Your task to perform on an android device: Open Chrome and go to settings Image 0: 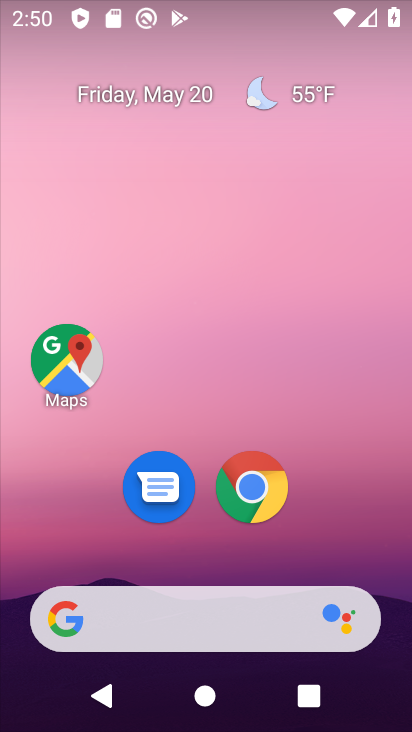
Step 0: drag from (316, 695) to (141, 5)
Your task to perform on an android device: Open Chrome and go to settings Image 1: 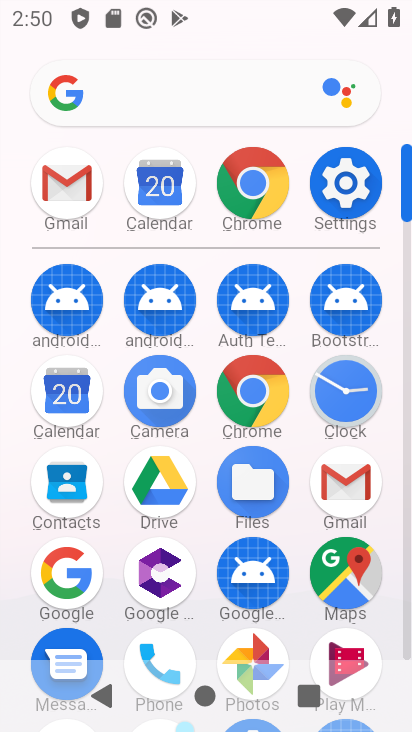
Step 1: click (343, 186)
Your task to perform on an android device: Open Chrome and go to settings Image 2: 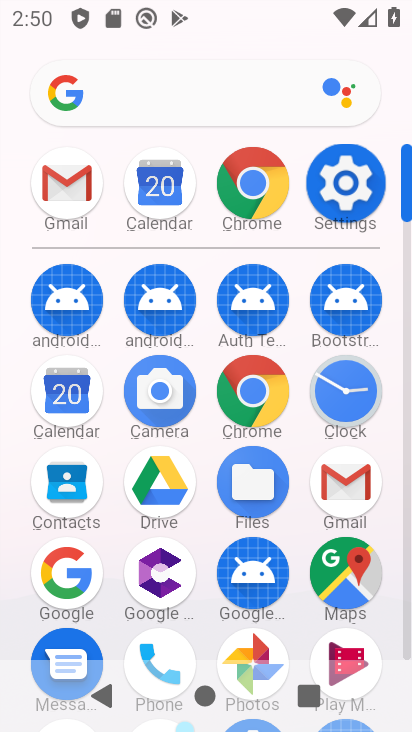
Step 2: click (373, 170)
Your task to perform on an android device: Open Chrome and go to settings Image 3: 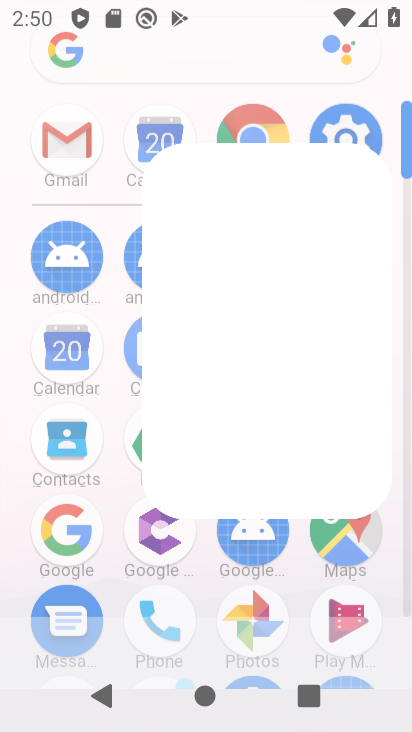
Step 3: click (373, 170)
Your task to perform on an android device: Open Chrome and go to settings Image 4: 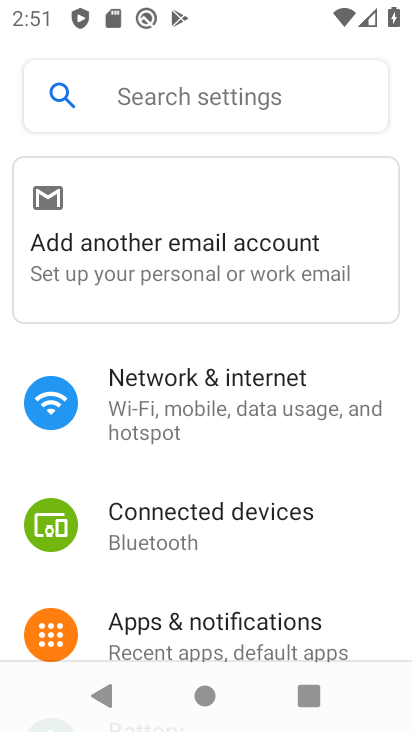
Step 4: drag from (242, 552) to (208, 167)
Your task to perform on an android device: Open Chrome and go to settings Image 5: 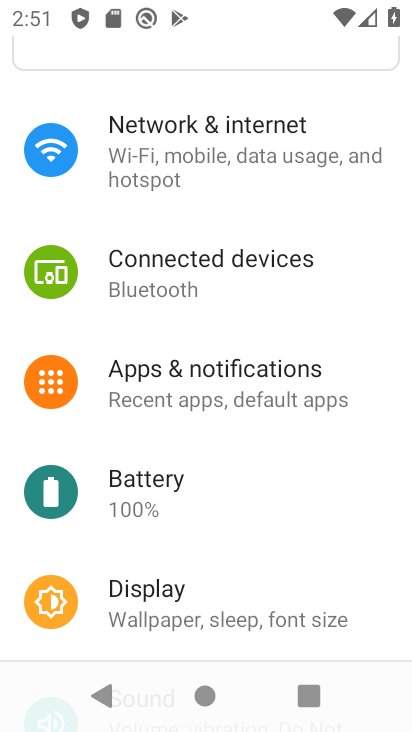
Step 5: drag from (207, 496) to (194, 57)
Your task to perform on an android device: Open Chrome and go to settings Image 6: 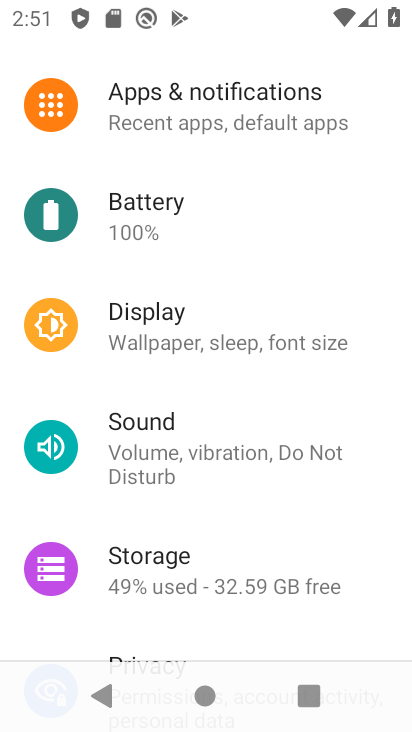
Step 6: drag from (230, 389) to (205, 81)
Your task to perform on an android device: Open Chrome and go to settings Image 7: 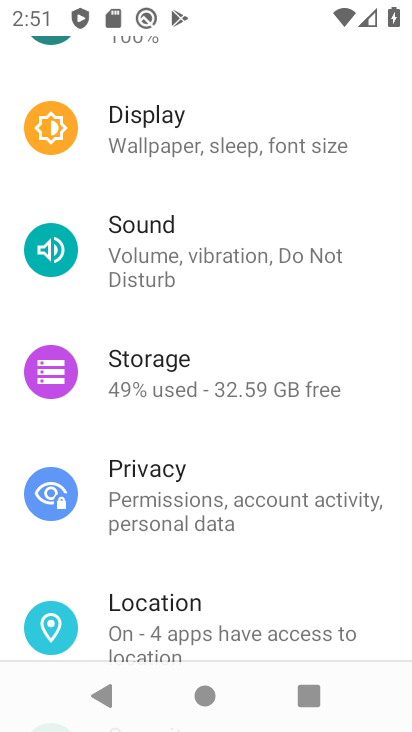
Step 7: drag from (295, 593) to (251, 89)
Your task to perform on an android device: Open Chrome and go to settings Image 8: 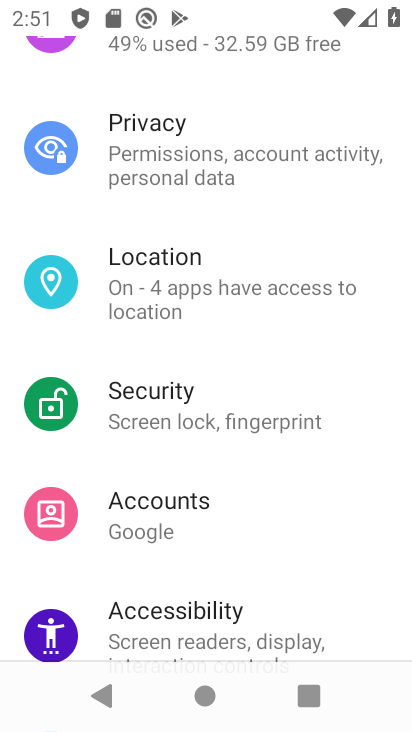
Step 8: drag from (293, 445) to (257, 44)
Your task to perform on an android device: Open Chrome and go to settings Image 9: 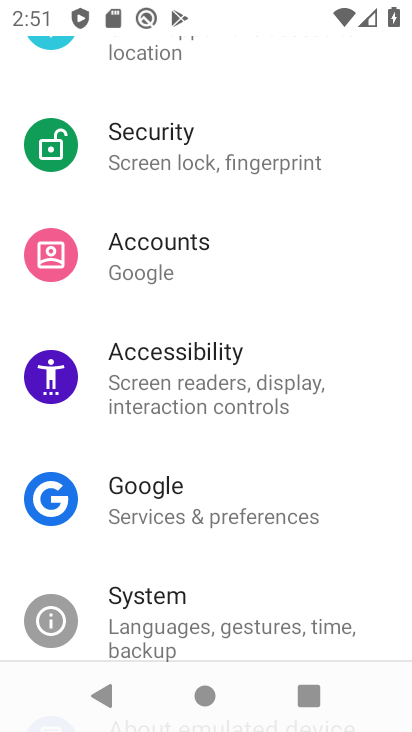
Step 9: drag from (240, 373) to (231, 202)
Your task to perform on an android device: Open Chrome and go to settings Image 10: 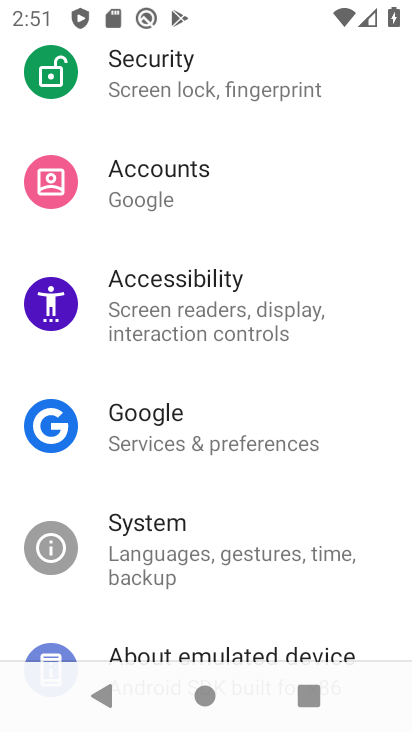
Step 10: drag from (221, 473) to (194, 72)
Your task to perform on an android device: Open Chrome and go to settings Image 11: 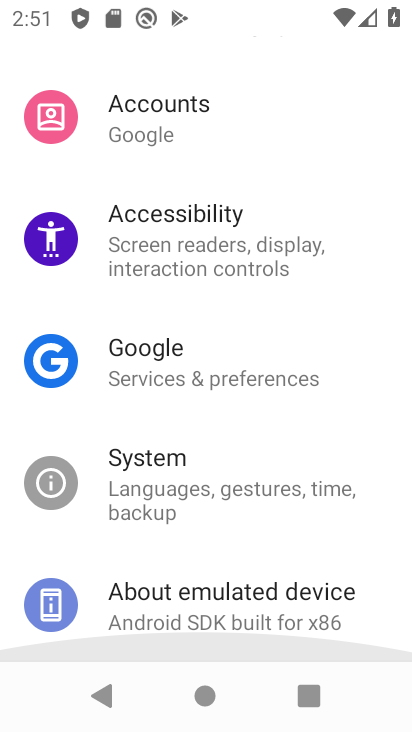
Step 11: drag from (215, 564) to (190, 100)
Your task to perform on an android device: Open Chrome and go to settings Image 12: 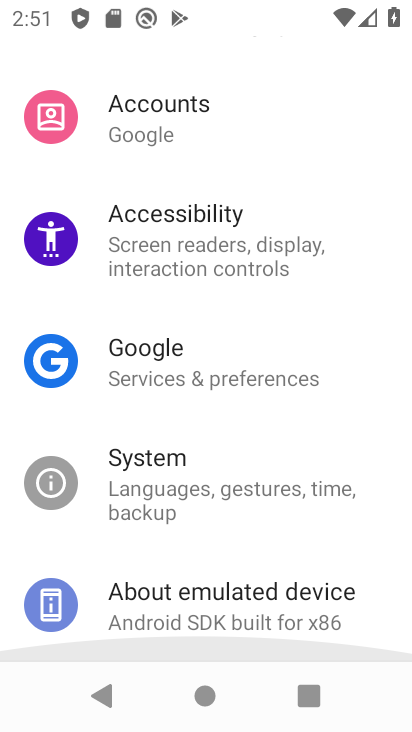
Step 12: drag from (259, 482) to (239, 1)
Your task to perform on an android device: Open Chrome and go to settings Image 13: 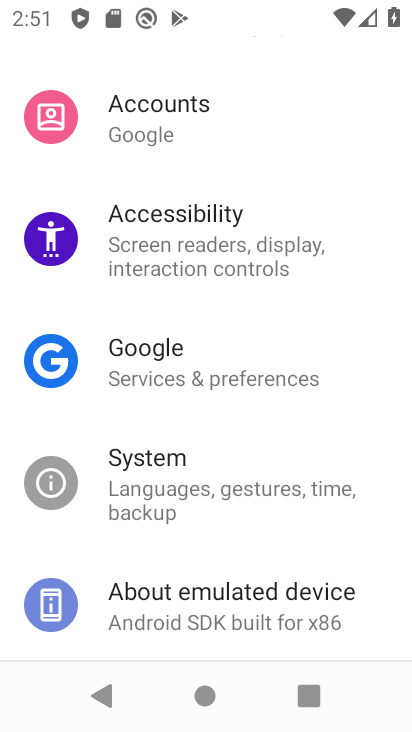
Step 13: press back button
Your task to perform on an android device: Open Chrome and go to settings Image 14: 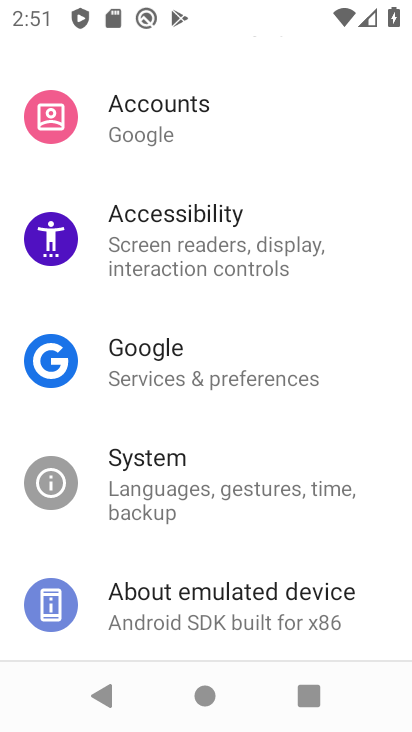
Step 14: press back button
Your task to perform on an android device: Open Chrome and go to settings Image 15: 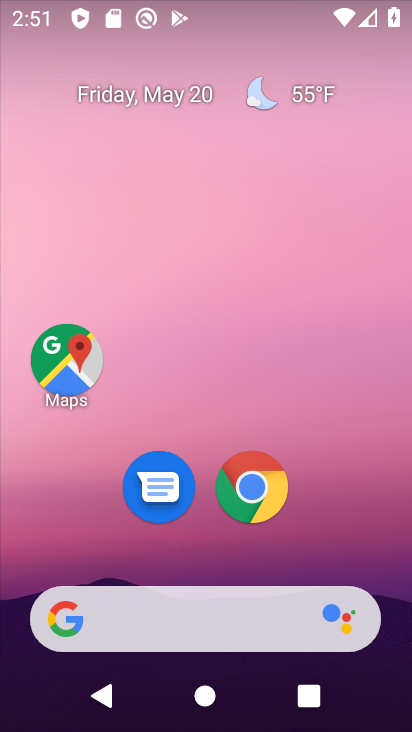
Step 15: drag from (287, 665) to (202, 11)
Your task to perform on an android device: Open Chrome and go to settings Image 16: 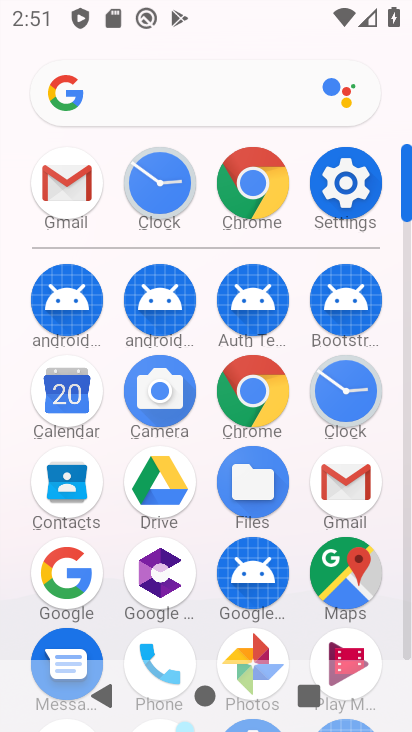
Step 16: click (248, 180)
Your task to perform on an android device: Open Chrome and go to settings Image 17: 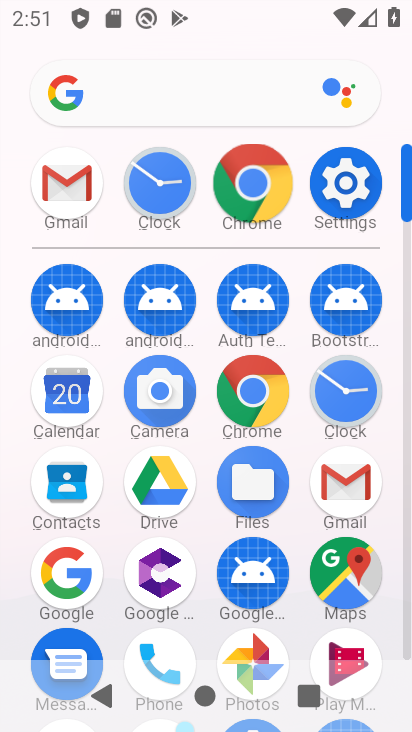
Step 17: click (248, 179)
Your task to perform on an android device: Open Chrome and go to settings Image 18: 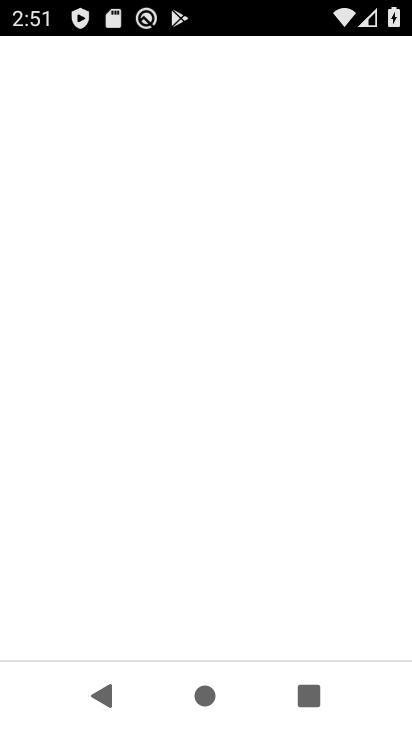
Step 18: click (247, 178)
Your task to perform on an android device: Open Chrome and go to settings Image 19: 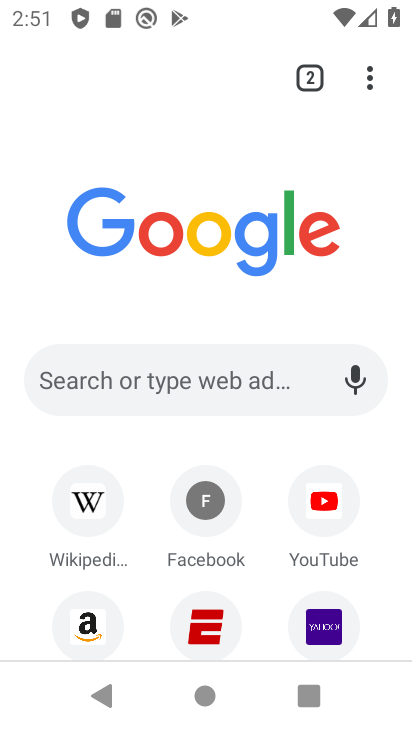
Step 19: drag from (369, 84) to (406, 254)
Your task to perform on an android device: Open Chrome and go to settings Image 20: 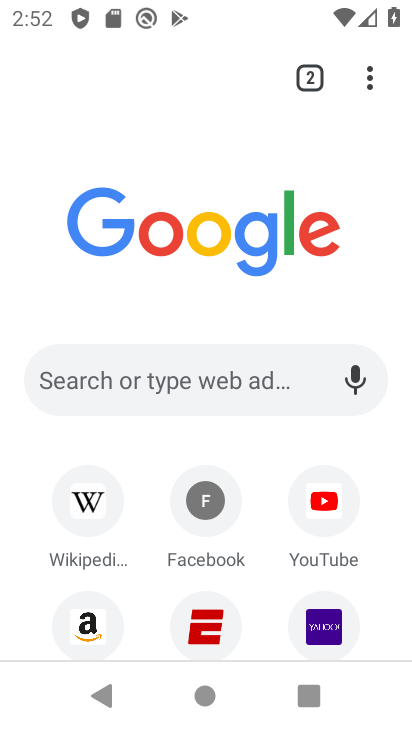
Step 20: click (366, 81)
Your task to perform on an android device: Open Chrome and go to settings Image 21: 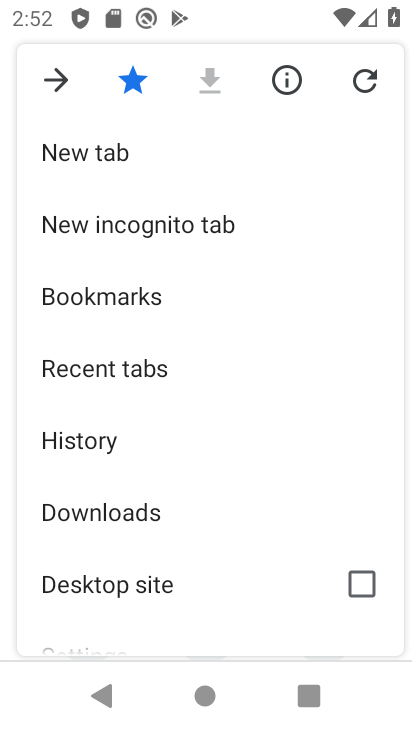
Step 21: drag from (246, 287) to (169, 139)
Your task to perform on an android device: Open Chrome and go to settings Image 22: 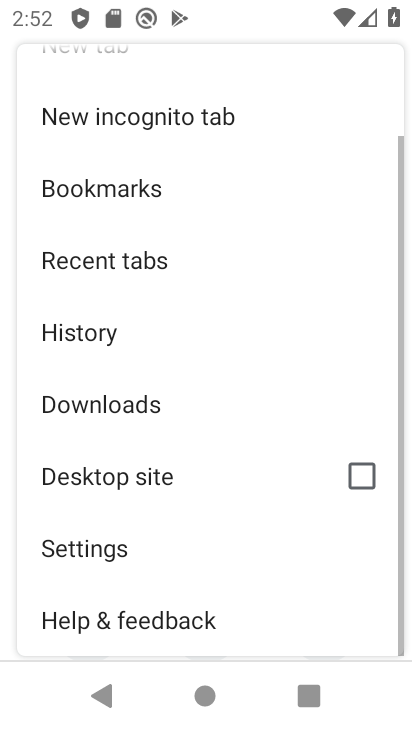
Step 22: drag from (157, 393) to (127, 166)
Your task to perform on an android device: Open Chrome and go to settings Image 23: 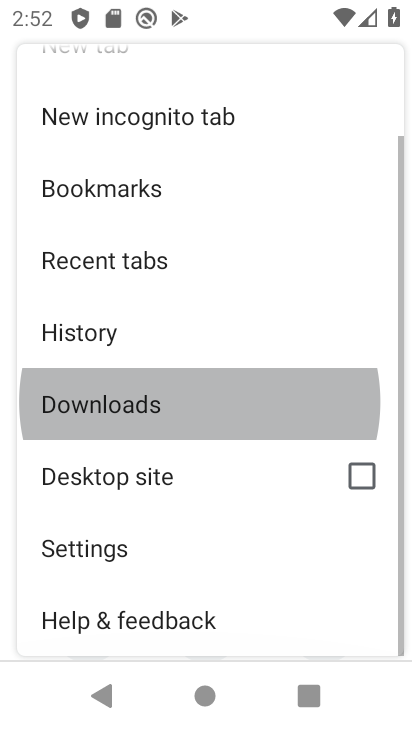
Step 23: drag from (181, 339) to (140, 178)
Your task to perform on an android device: Open Chrome and go to settings Image 24: 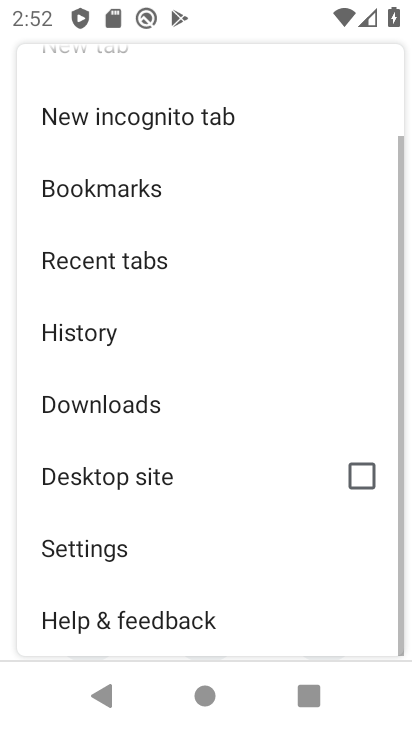
Step 24: click (89, 554)
Your task to perform on an android device: Open Chrome and go to settings Image 25: 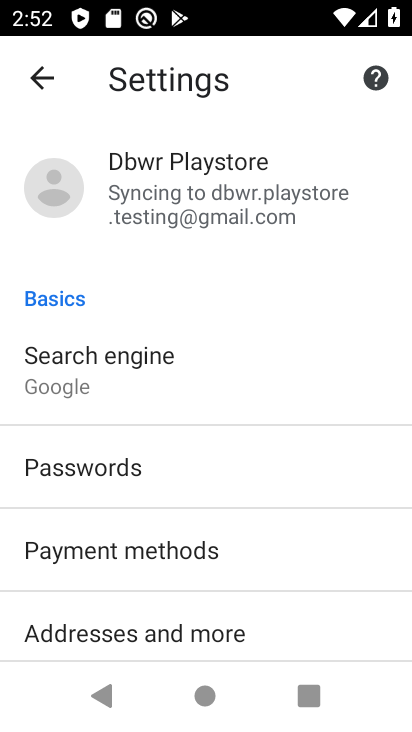
Step 25: task complete